Your task to perform on an android device: Is it going to rain today? Image 0: 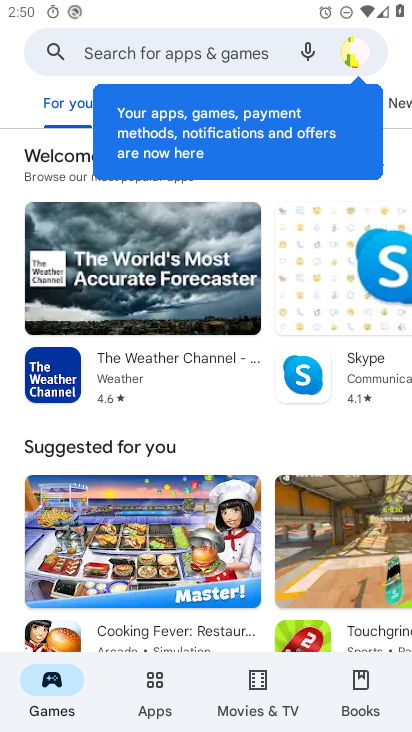
Step 0: press home button
Your task to perform on an android device: Is it going to rain today? Image 1: 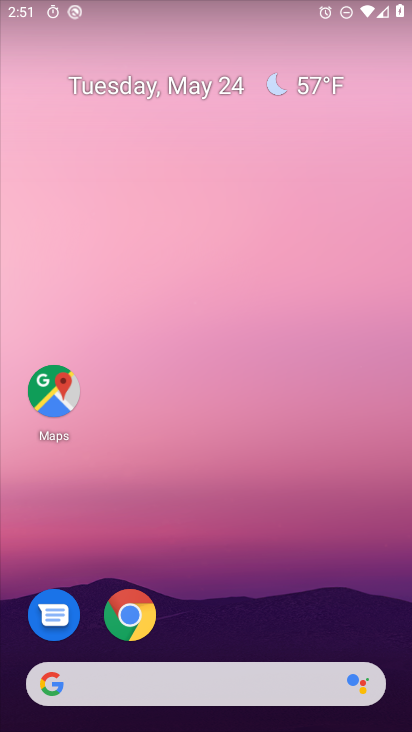
Step 1: drag from (149, 672) to (183, 335)
Your task to perform on an android device: Is it going to rain today? Image 2: 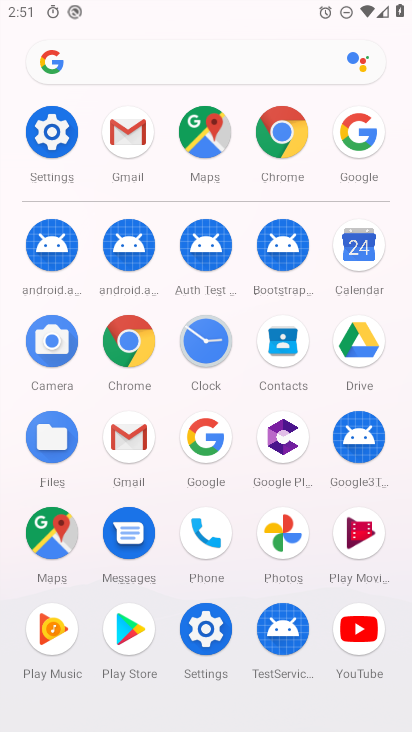
Step 2: click (210, 434)
Your task to perform on an android device: Is it going to rain today? Image 3: 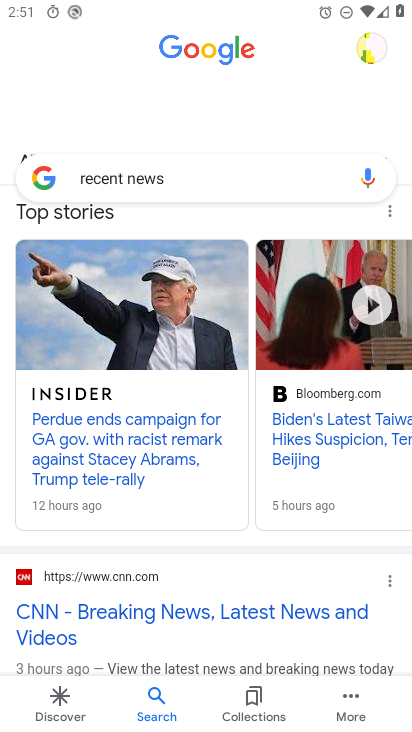
Step 3: click (209, 179)
Your task to perform on an android device: Is it going to rain today? Image 4: 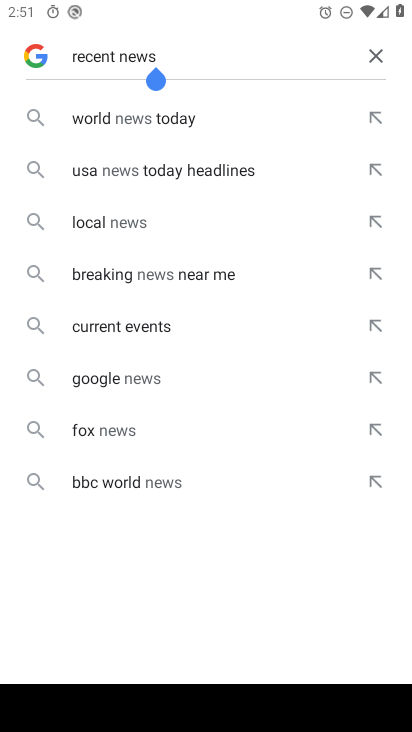
Step 4: drag from (115, 515) to (148, 134)
Your task to perform on an android device: Is it going to rain today? Image 5: 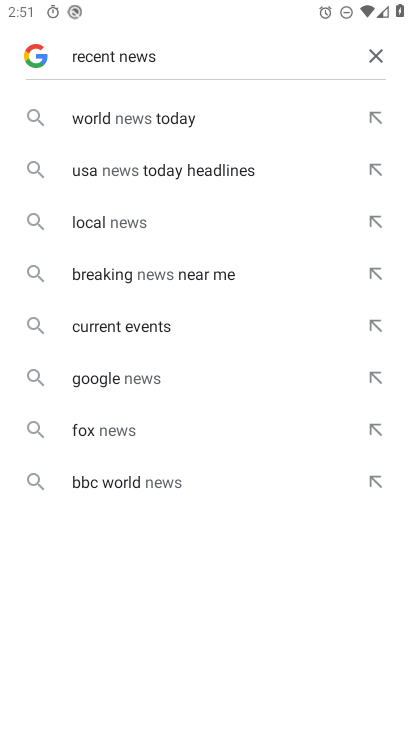
Step 5: click (382, 55)
Your task to perform on an android device: Is it going to rain today? Image 6: 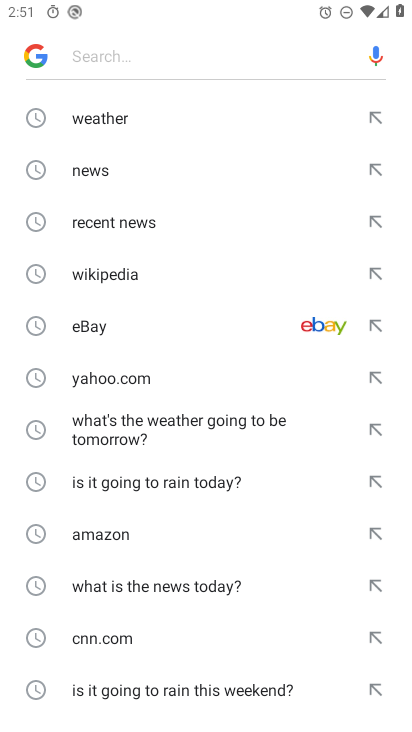
Step 6: click (214, 483)
Your task to perform on an android device: Is it going to rain today? Image 7: 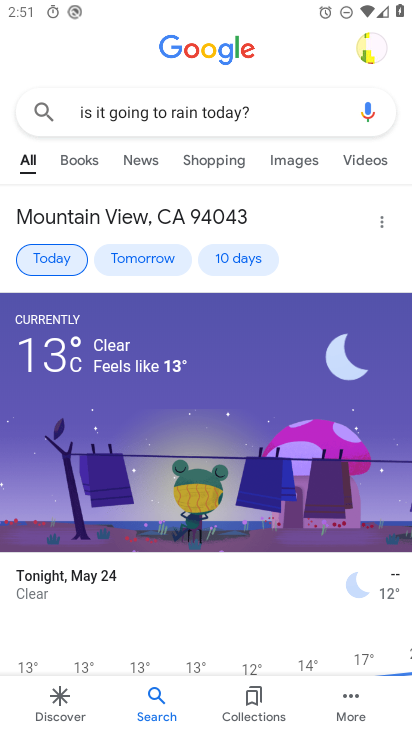
Step 7: task complete